Your task to perform on an android device: Open Google Maps and go to "Timeline" Image 0: 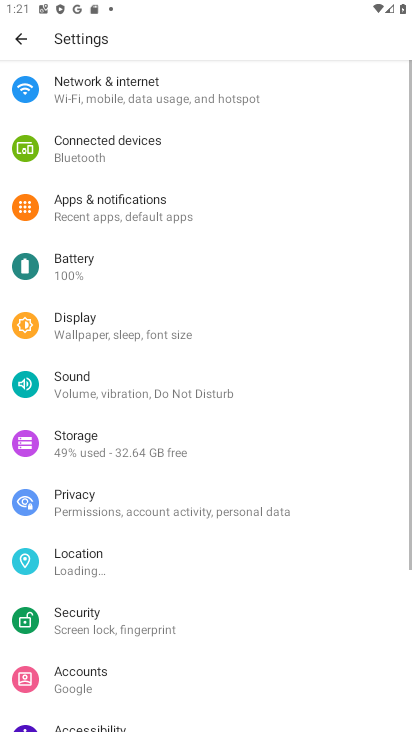
Step 0: press home button
Your task to perform on an android device: Open Google Maps and go to "Timeline" Image 1: 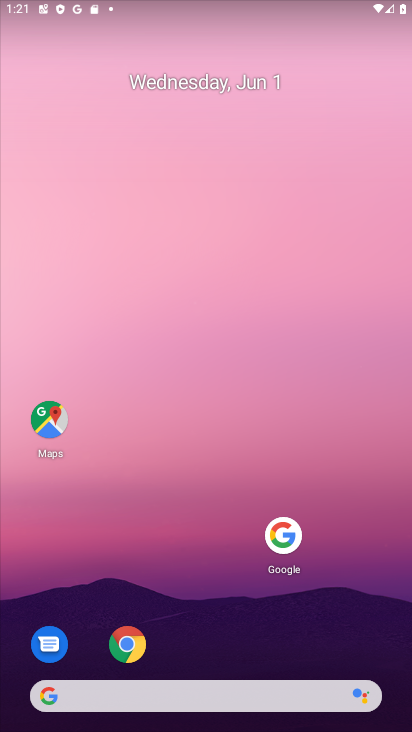
Step 1: click (48, 419)
Your task to perform on an android device: Open Google Maps and go to "Timeline" Image 2: 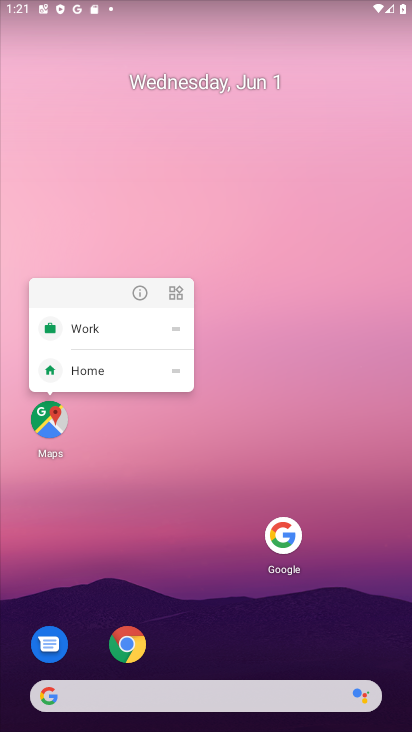
Step 2: click (48, 418)
Your task to perform on an android device: Open Google Maps and go to "Timeline" Image 3: 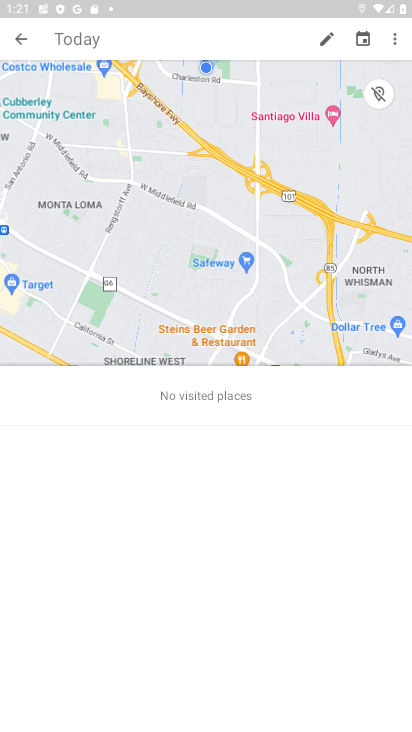
Step 3: task complete